Your task to perform on an android device: add a contact Image 0: 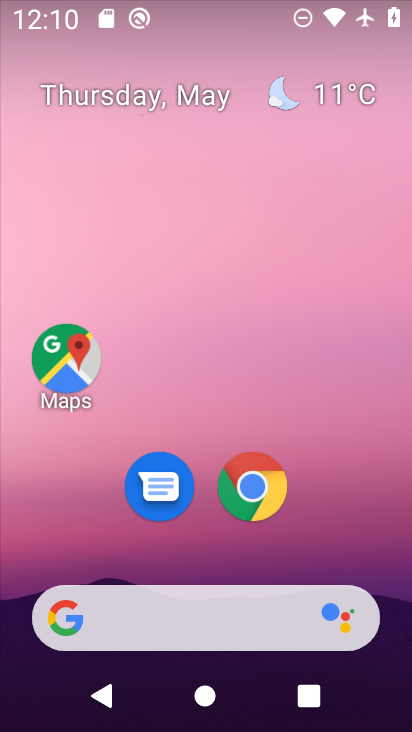
Step 0: drag from (302, 513) to (233, 23)
Your task to perform on an android device: add a contact Image 1: 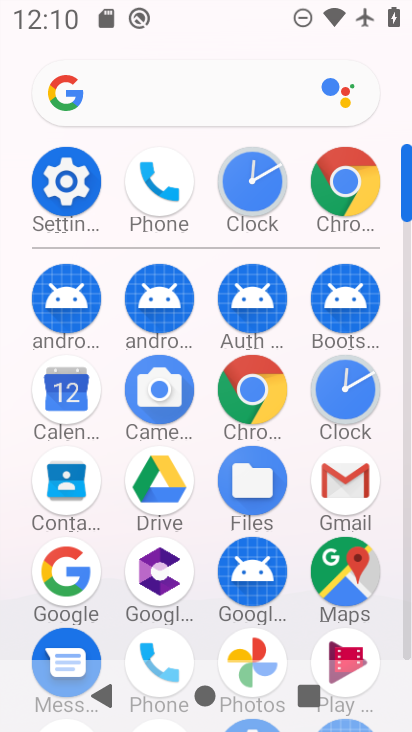
Step 1: drag from (13, 531) to (17, 328)
Your task to perform on an android device: add a contact Image 2: 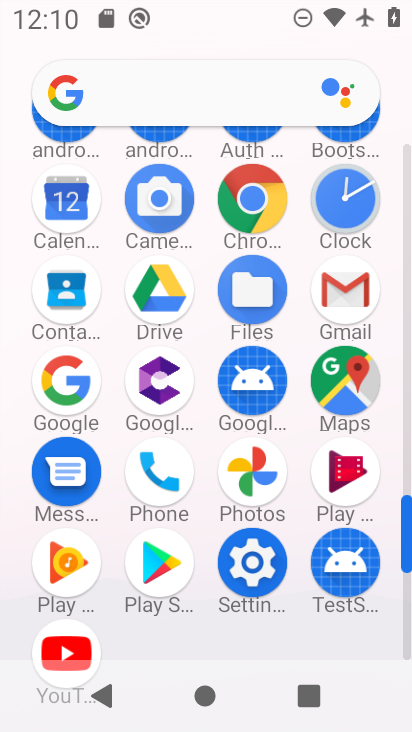
Step 2: click (64, 277)
Your task to perform on an android device: add a contact Image 3: 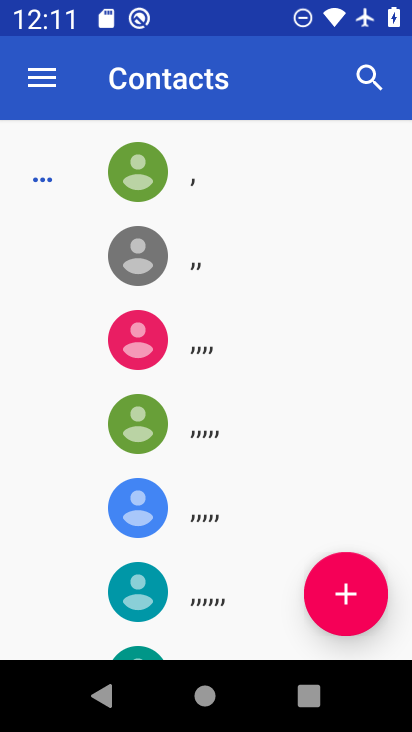
Step 3: click (347, 588)
Your task to perform on an android device: add a contact Image 4: 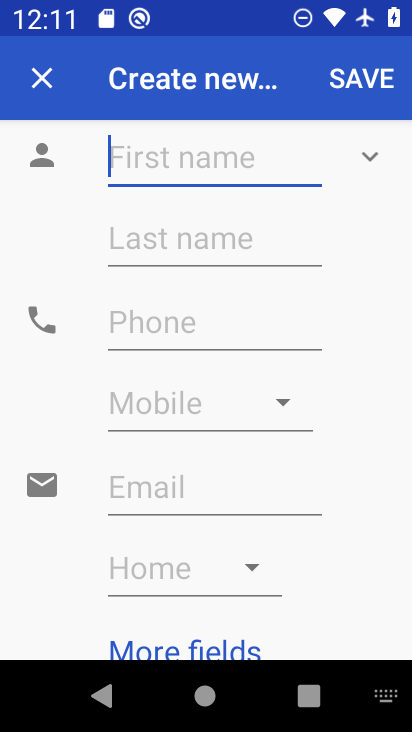
Step 4: type "Durgesh"
Your task to perform on an android device: add a contact Image 5: 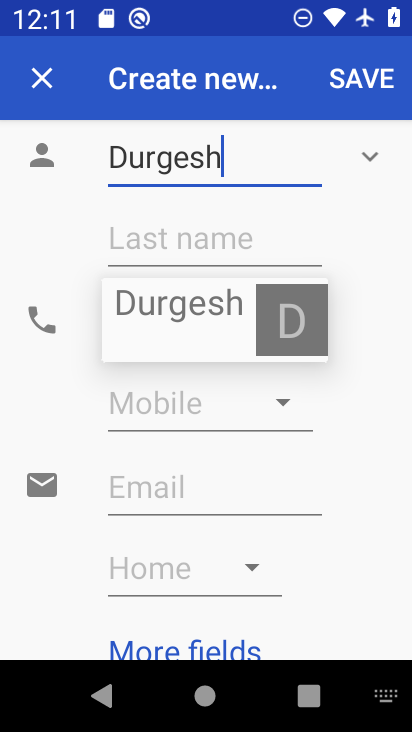
Step 5: click (147, 397)
Your task to perform on an android device: add a contact Image 6: 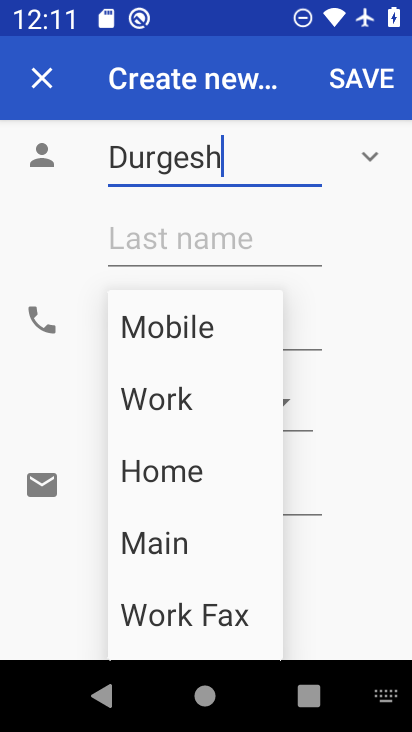
Step 6: click (94, 378)
Your task to perform on an android device: add a contact Image 7: 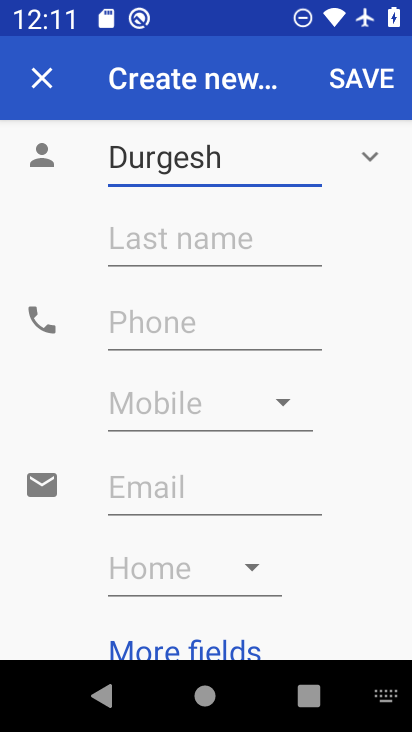
Step 7: click (151, 327)
Your task to perform on an android device: add a contact Image 8: 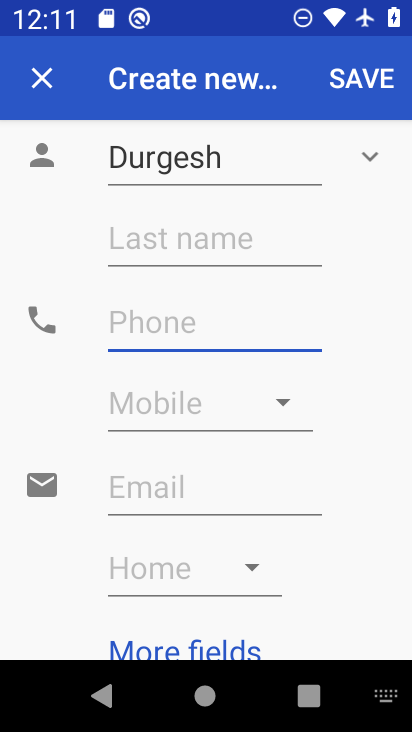
Step 8: type "345675432"
Your task to perform on an android device: add a contact Image 9: 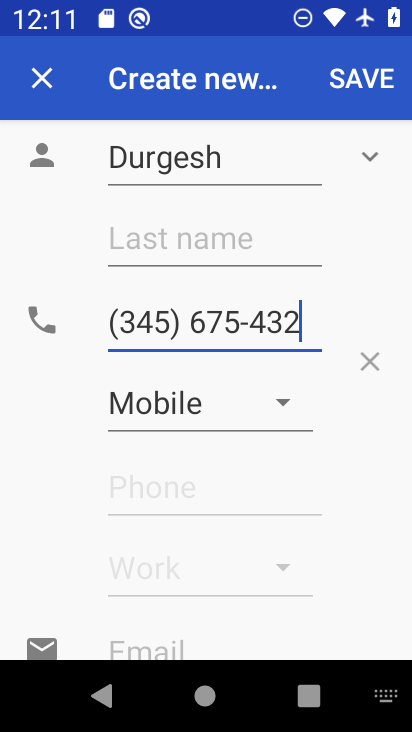
Step 9: type ""
Your task to perform on an android device: add a contact Image 10: 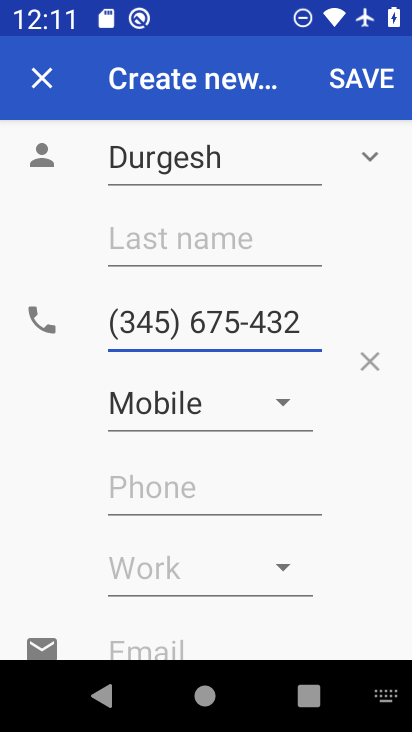
Step 10: click (348, 70)
Your task to perform on an android device: add a contact Image 11: 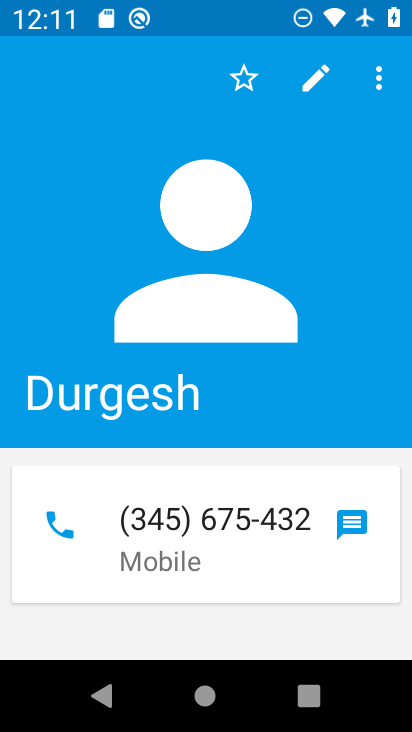
Step 11: task complete